Your task to perform on an android device: Open wifi settings Image 0: 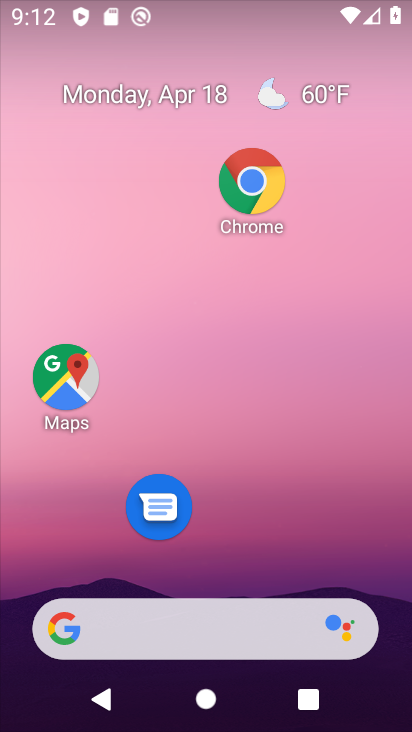
Step 0: drag from (262, 607) to (21, 5)
Your task to perform on an android device: Open wifi settings Image 1: 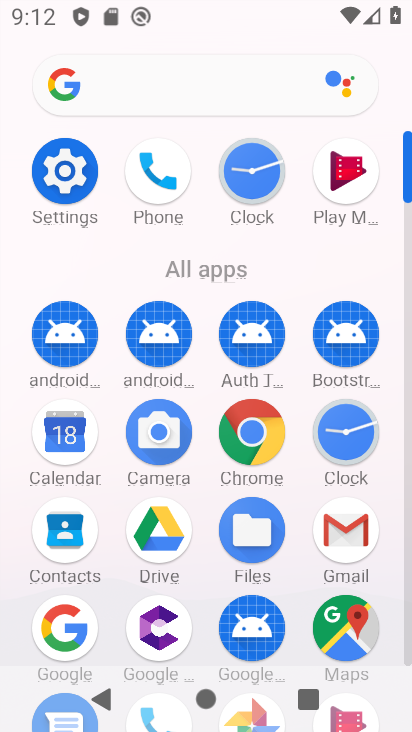
Step 1: click (79, 207)
Your task to perform on an android device: Open wifi settings Image 2: 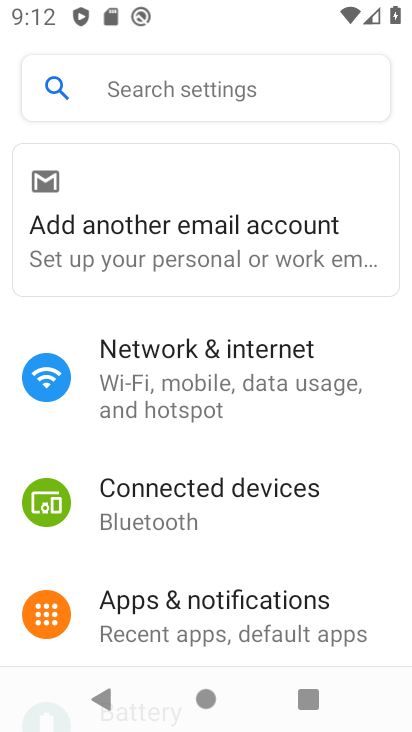
Step 2: click (202, 359)
Your task to perform on an android device: Open wifi settings Image 3: 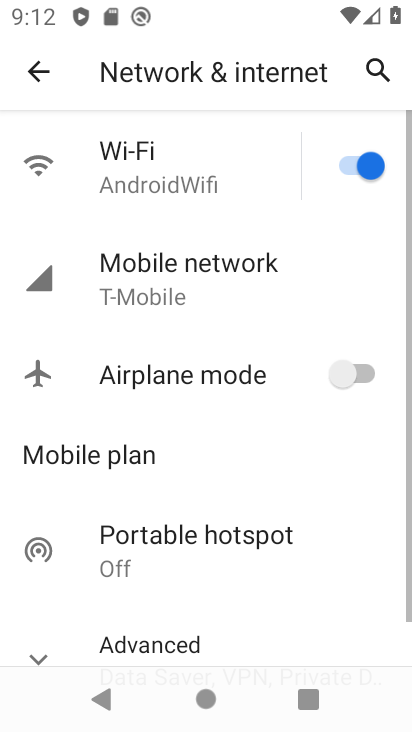
Step 3: click (177, 163)
Your task to perform on an android device: Open wifi settings Image 4: 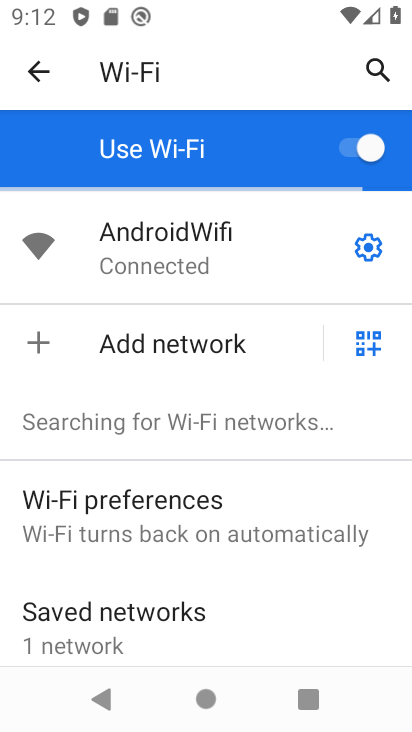
Step 4: task complete